Your task to perform on an android device: Open Google Chrome Image 0: 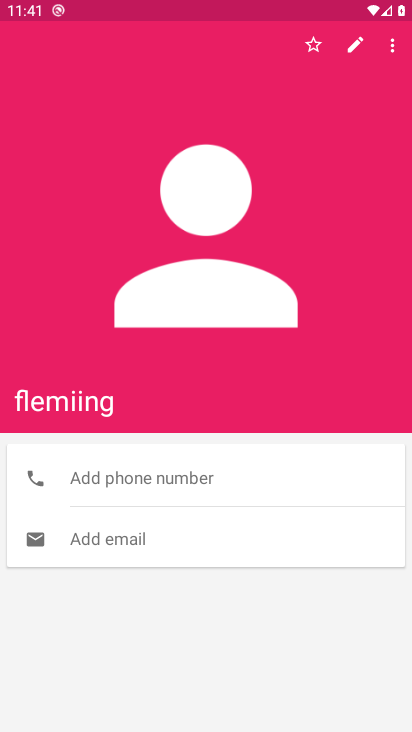
Step 0: press home button
Your task to perform on an android device: Open Google Chrome Image 1: 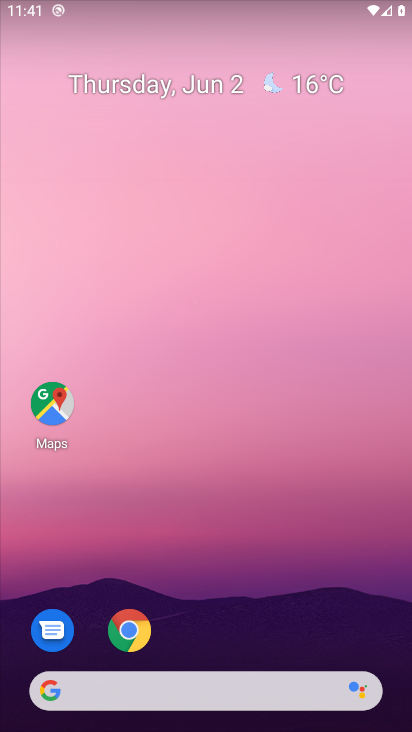
Step 1: click (127, 627)
Your task to perform on an android device: Open Google Chrome Image 2: 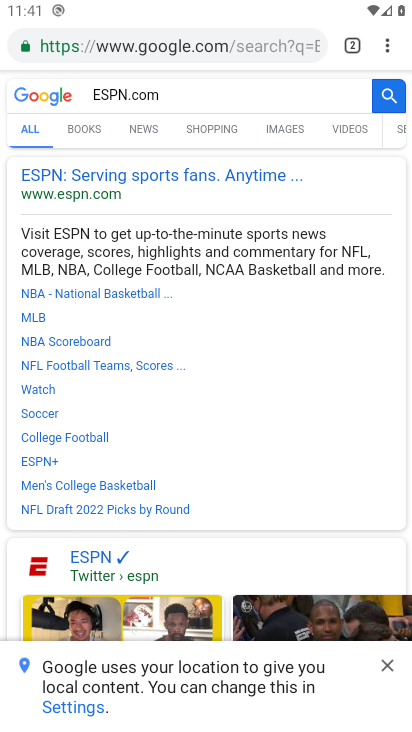
Step 2: click (242, 410)
Your task to perform on an android device: Open Google Chrome Image 3: 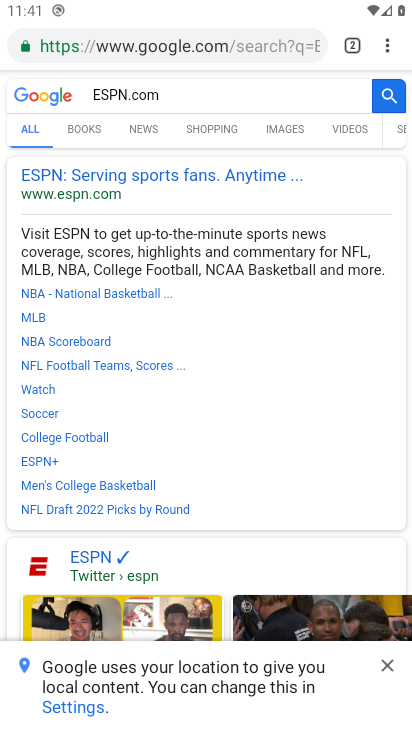
Step 3: task complete